Your task to perform on an android device: See recent photos Image 0: 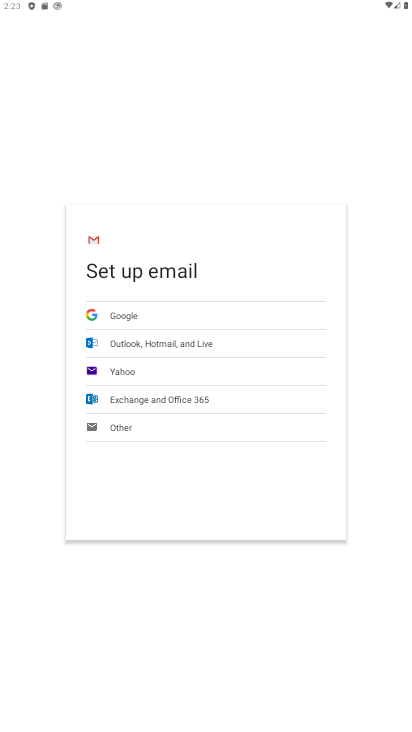
Step 0: press home button
Your task to perform on an android device: See recent photos Image 1: 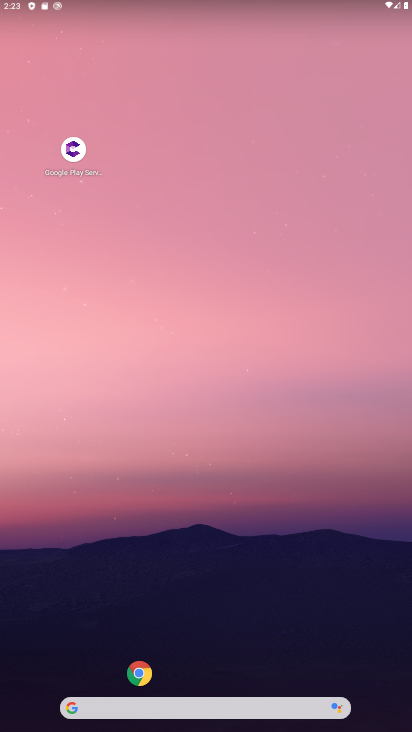
Step 1: drag from (66, 638) to (268, 65)
Your task to perform on an android device: See recent photos Image 2: 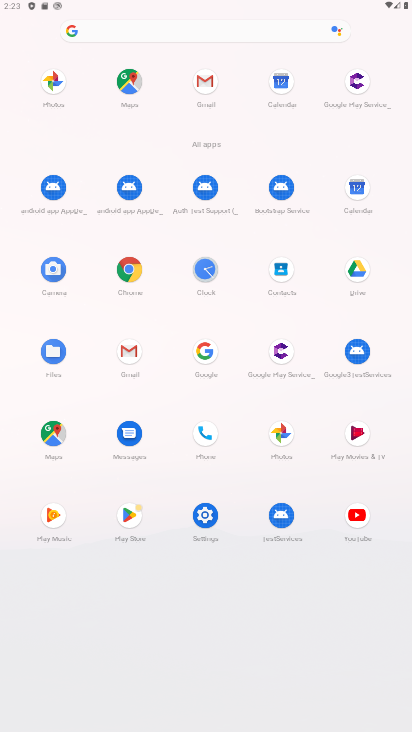
Step 2: click (284, 435)
Your task to perform on an android device: See recent photos Image 3: 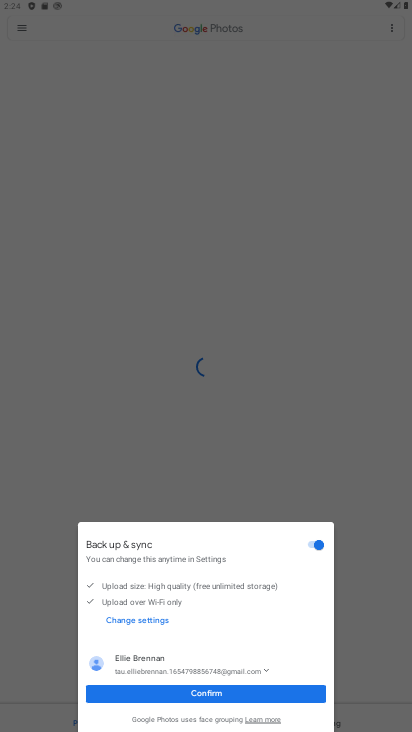
Step 3: click (154, 694)
Your task to perform on an android device: See recent photos Image 4: 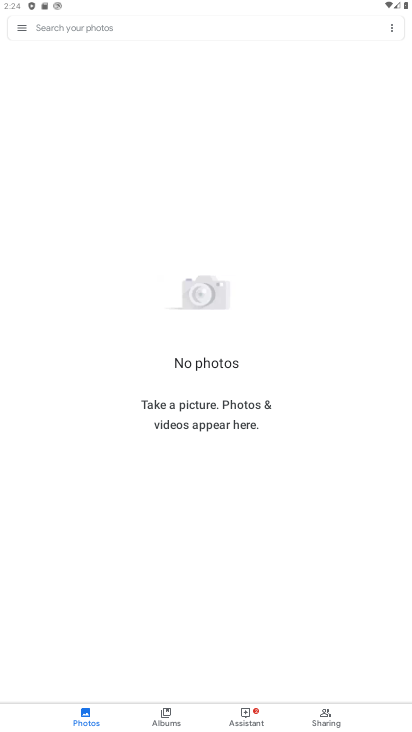
Step 4: task complete